Your task to perform on an android device: Search for sushi restaurants on Maps Image 0: 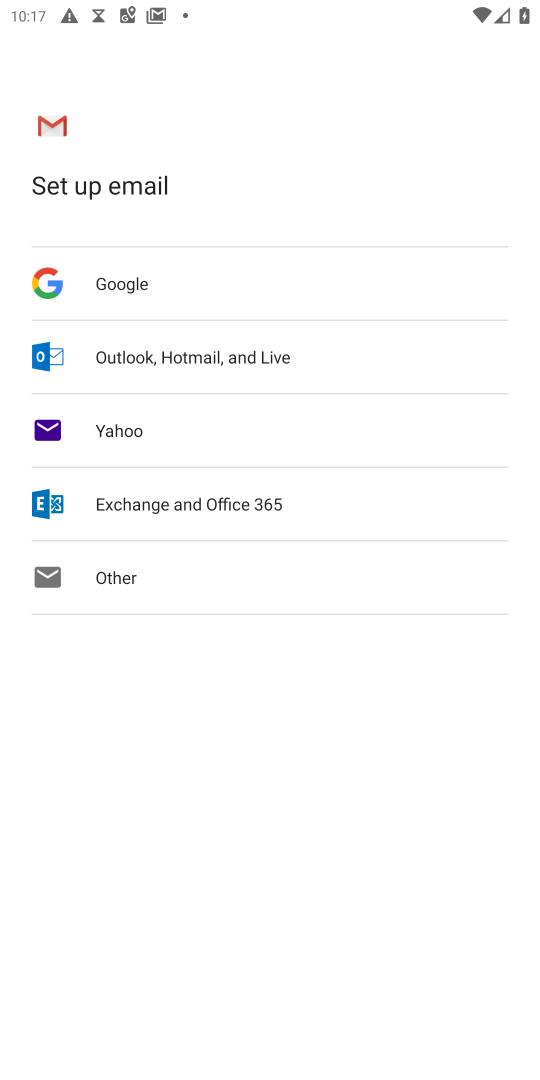
Step 0: press home button
Your task to perform on an android device: Search for sushi restaurants on Maps Image 1: 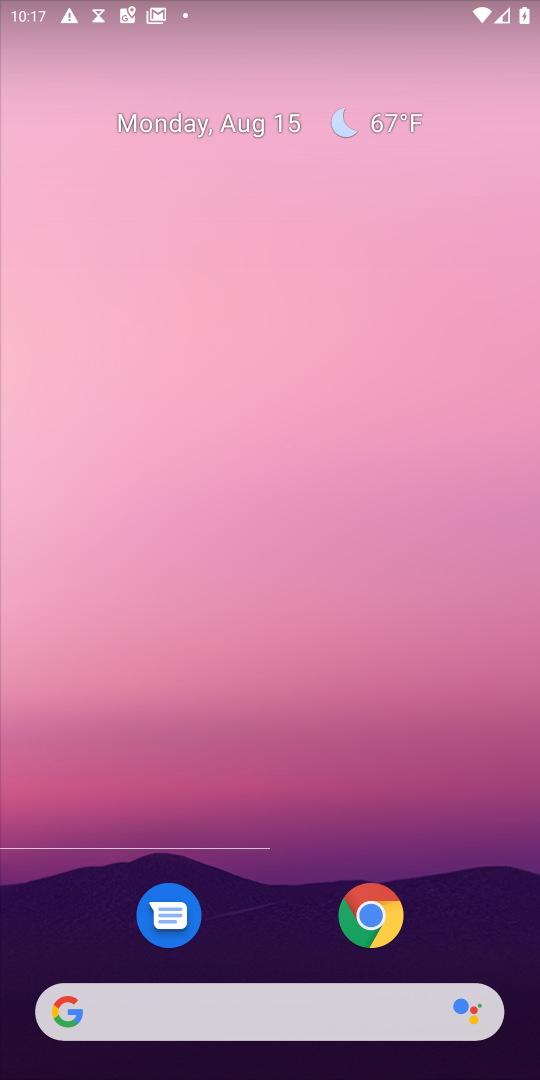
Step 1: drag from (294, 856) to (332, 289)
Your task to perform on an android device: Search for sushi restaurants on Maps Image 2: 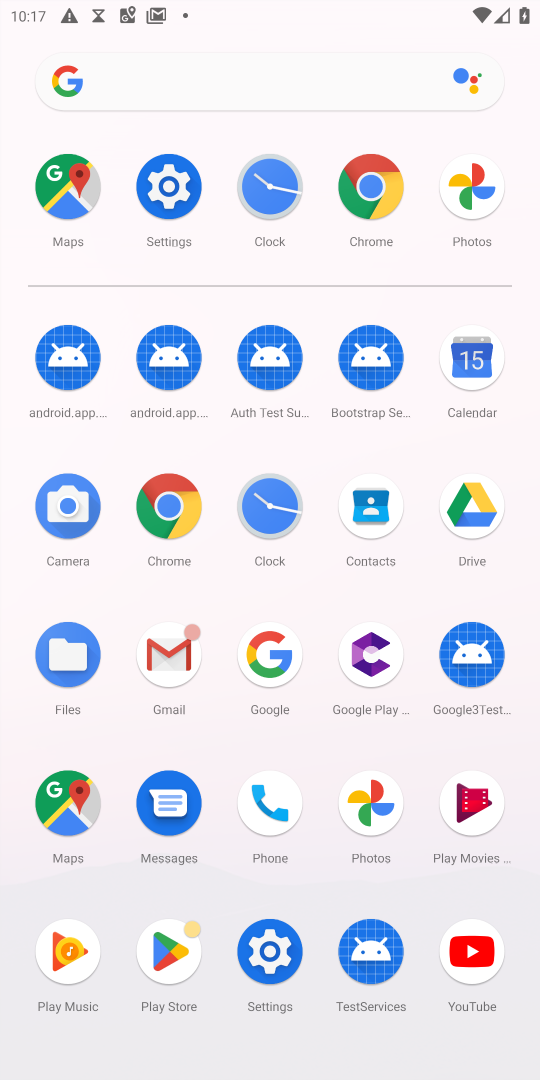
Step 2: click (57, 183)
Your task to perform on an android device: Search for sushi restaurants on Maps Image 3: 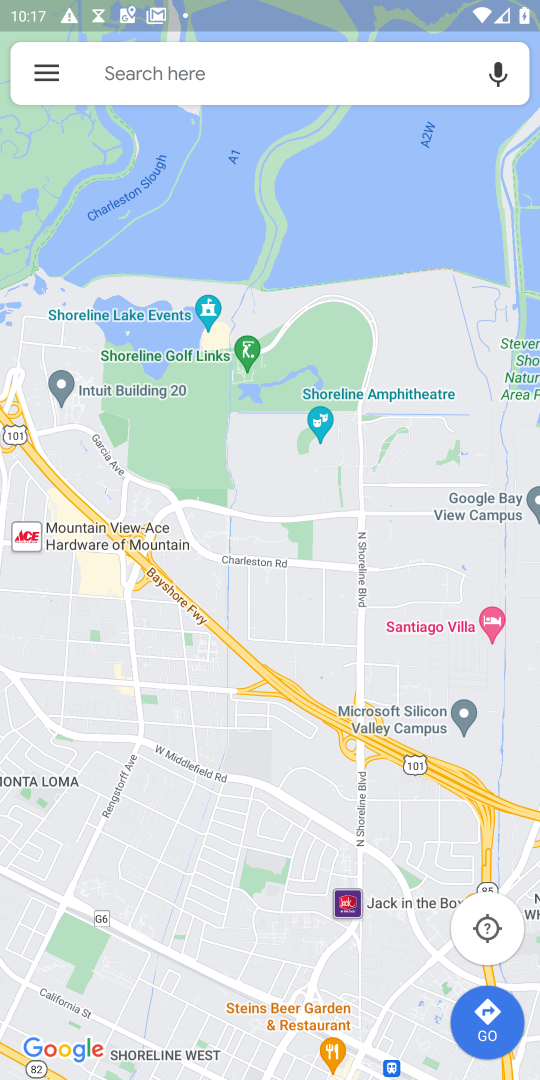
Step 3: click (174, 76)
Your task to perform on an android device: Search for sushi restaurants on Maps Image 4: 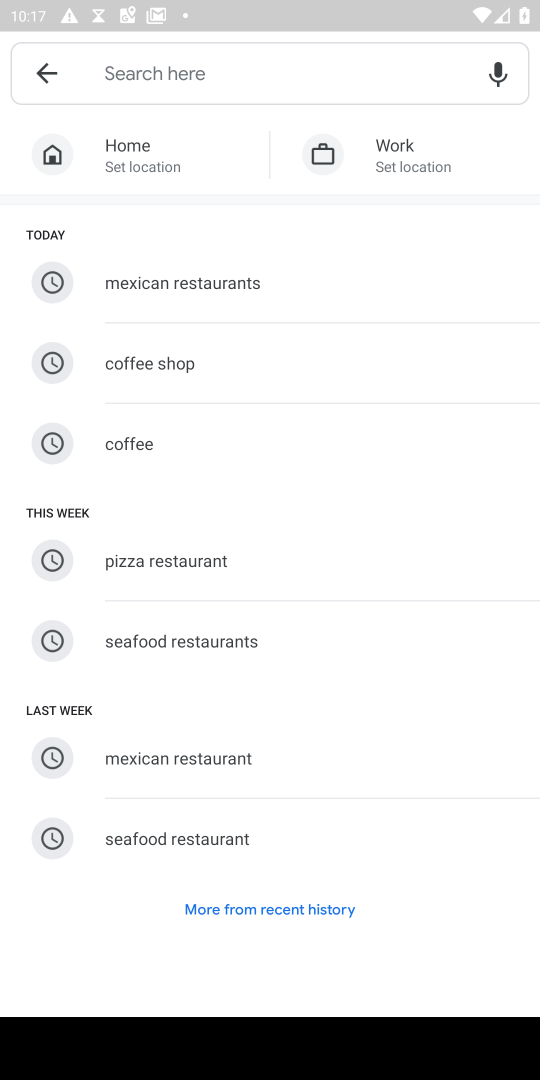
Step 4: type " sushi restaurants"
Your task to perform on an android device: Search for sushi restaurants on Maps Image 5: 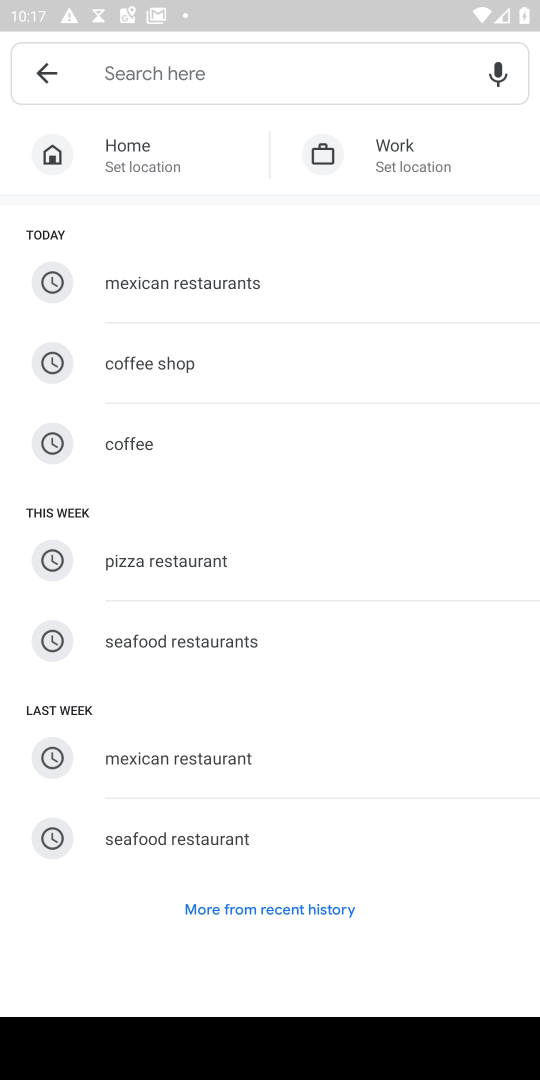
Step 5: click (200, 68)
Your task to perform on an android device: Search for sushi restaurants on Maps Image 6: 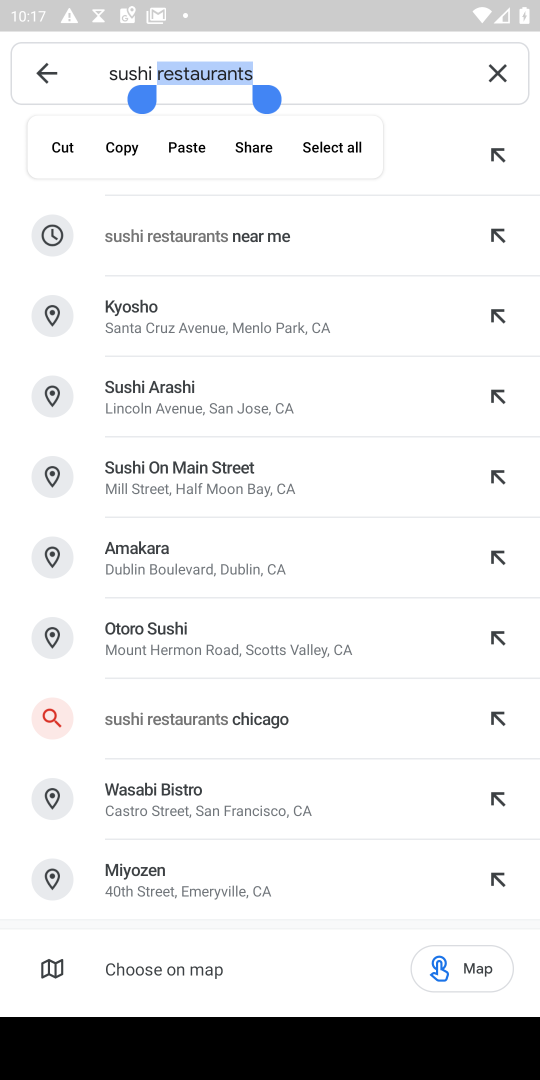
Step 6: press enter
Your task to perform on an android device: Search for sushi restaurants on Maps Image 7: 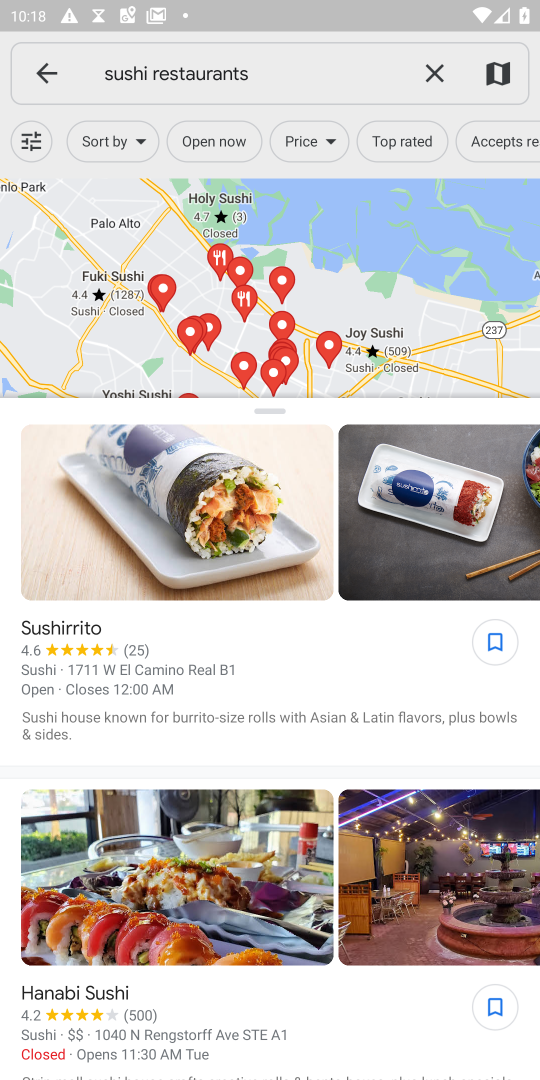
Step 7: task complete